Your task to perform on an android device: Go to location settings Image 0: 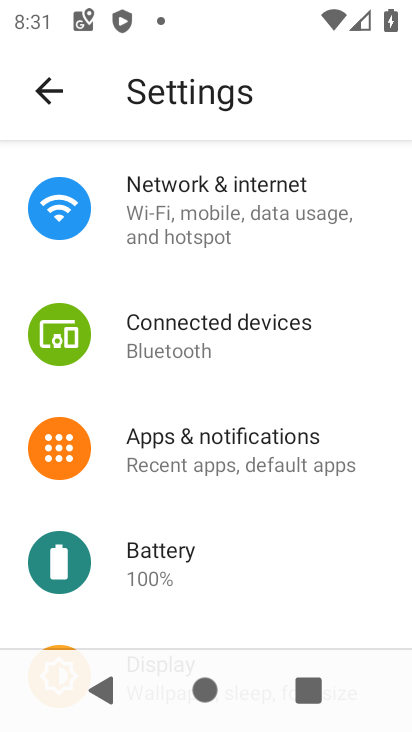
Step 0: drag from (267, 515) to (267, 191)
Your task to perform on an android device: Go to location settings Image 1: 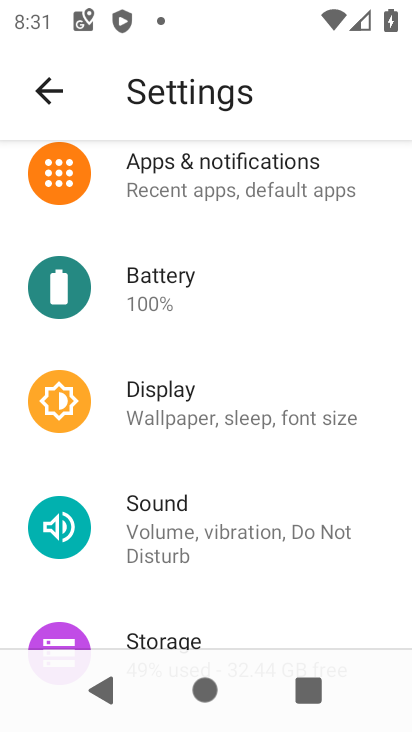
Step 1: drag from (231, 524) to (252, 133)
Your task to perform on an android device: Go to location settings Image 2: 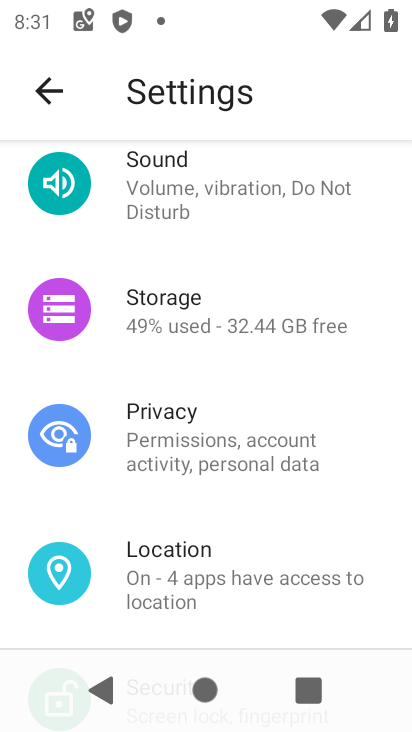
Step 2: click (183, 558)
Your task to perform on an android device: Go to location settings Image 3: 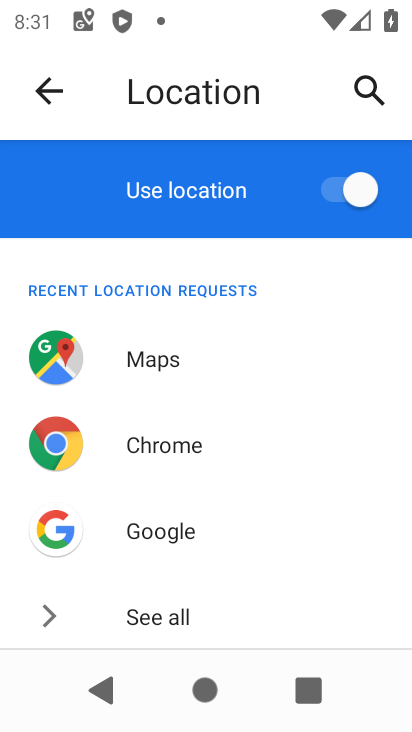
Step 3: task complete